Your task to perform on an android device: Play the last video I watched on Youtube Image 0: 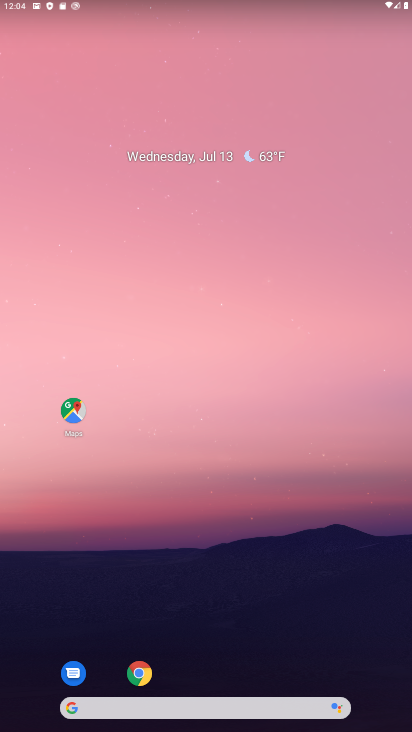
Step 0: drag from (227, 623) to (232, 134)
Your task to perform on an android device: Play the last video I watched on Youtube Image 1: 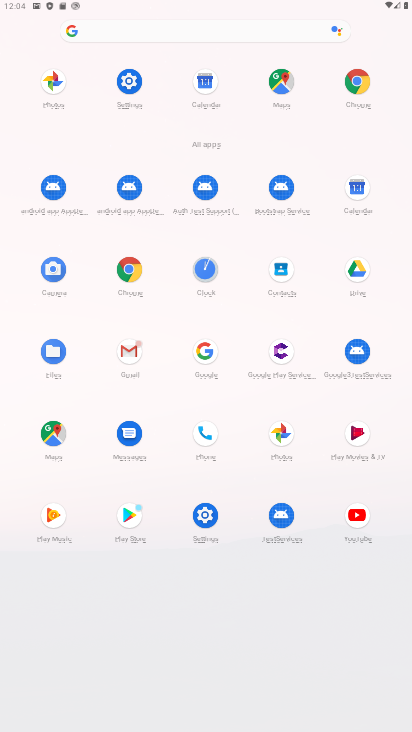
Step 1: click (353, 507)
Your task to perform on an android device: Play the last video I watched on Youtube Image 2: 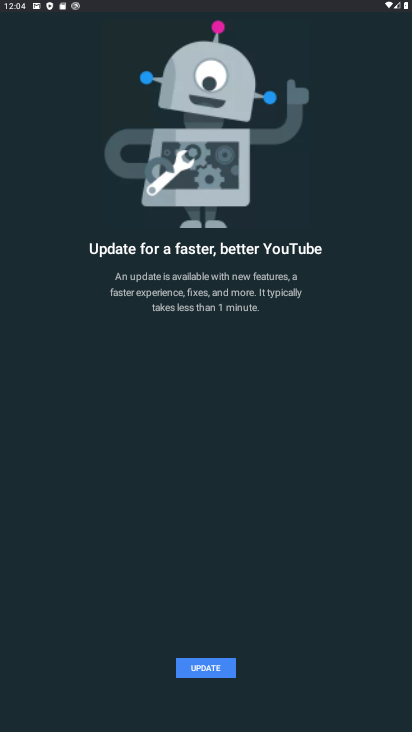
Step 2: click (202, 665)
Your task to perform on an android device: Play the last video I watched on Youtube Image 3: 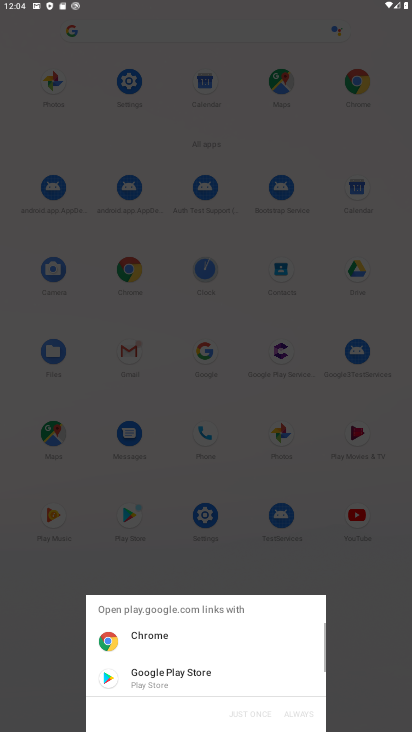
Step 3: click (202, 665)
Your task to perform on an android device: Play the last video I watched on Youtube Image 4: 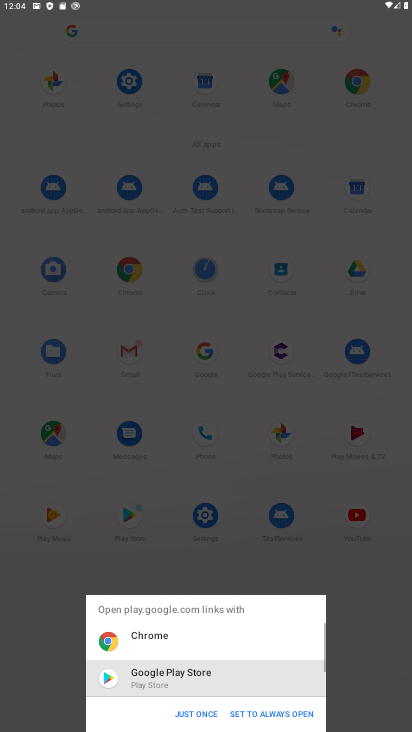
Step 4: click (213, 714)
Your task to perform on an android device: Play the last video I watched on Youtube Image 5: 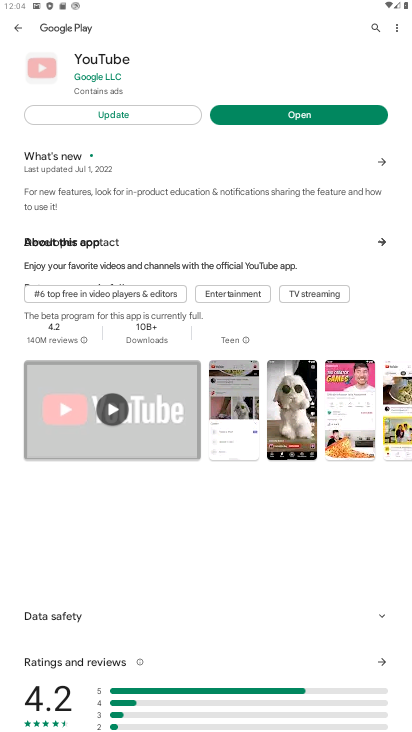
Step 5: click (98, 110)
Your task to perform on an android device: Play the last video I watched on Youtube Image 6: 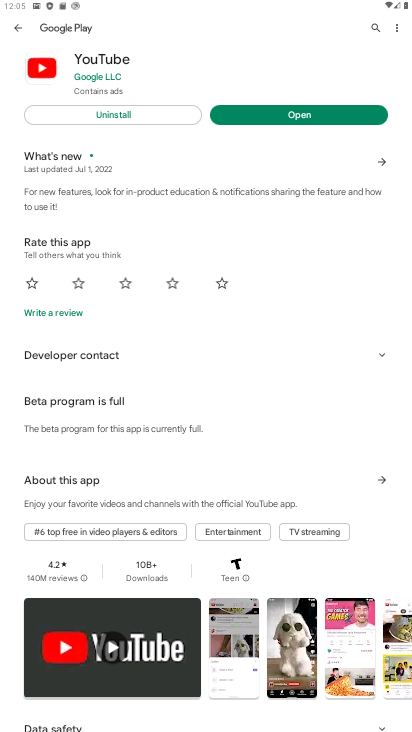
Step 6: click (309, 111)
Your task to perform on an android device: Play the last video I watched on Youtube Image 7: 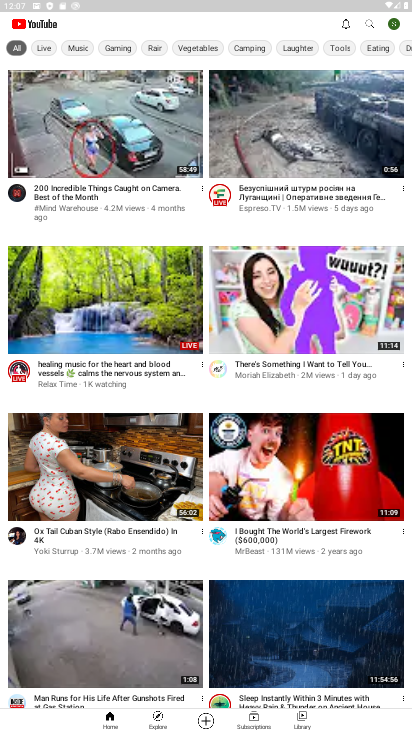
Step 7: click (306, 721)
Your task to perform on an android device: Play the last video I watched on Youtube Image 8: 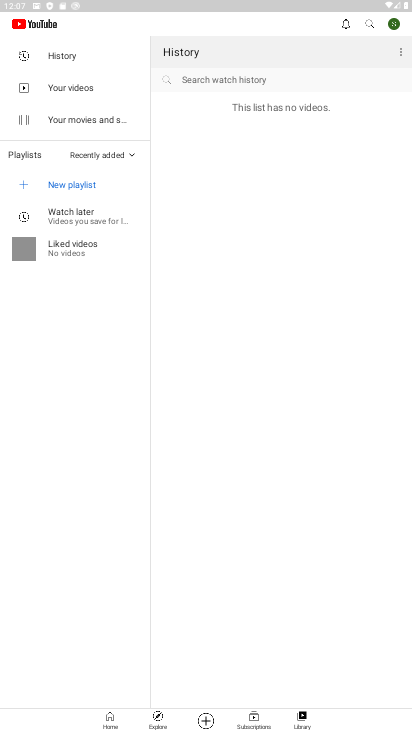
Step 8: click (68, 53)
Your task to perform on an android device: Play the last video I watched on Youtube Image 9: 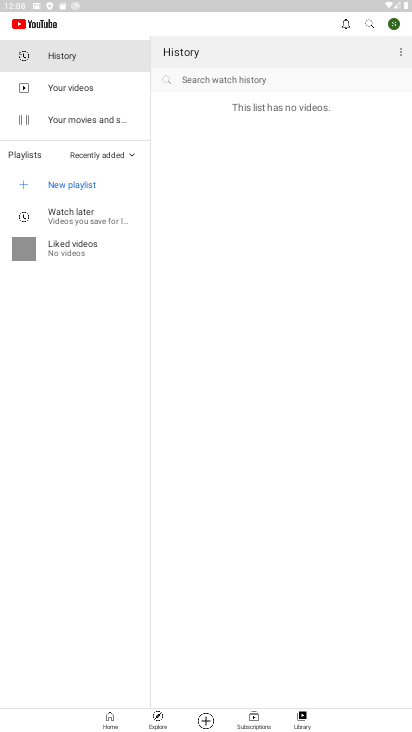
Step 9: task complete